Your task to perform on an android device: Go to Amazon Image 0: 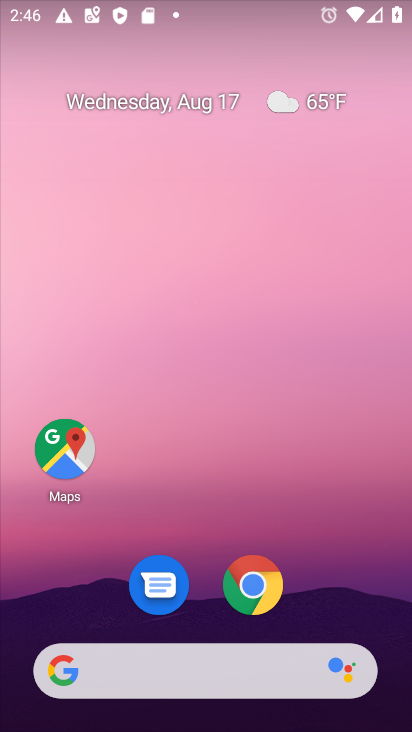
Step 0: click (254, 581)
Your task to perform on an android device: Go to Amazon Image 1: 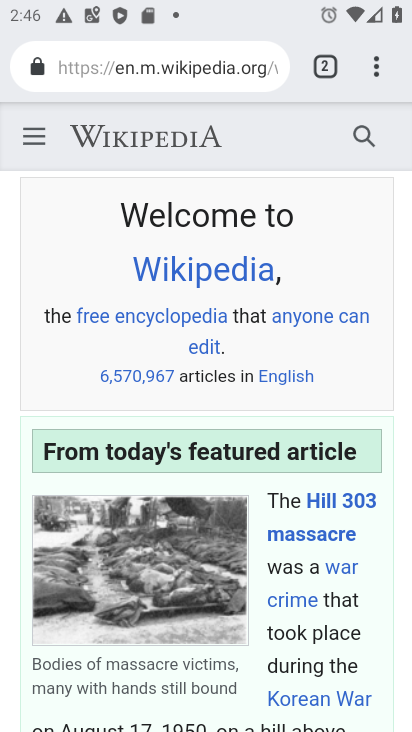
Step 1: click (374, 71)
Your task to perform on an android device: Go to Amazon Image 2: 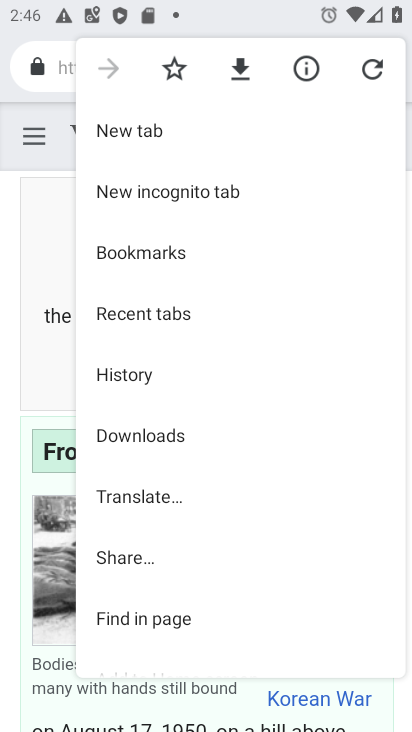
Step 2: click (197, 146)
Your task to perform on an android device: Go to Amazon Image 3: 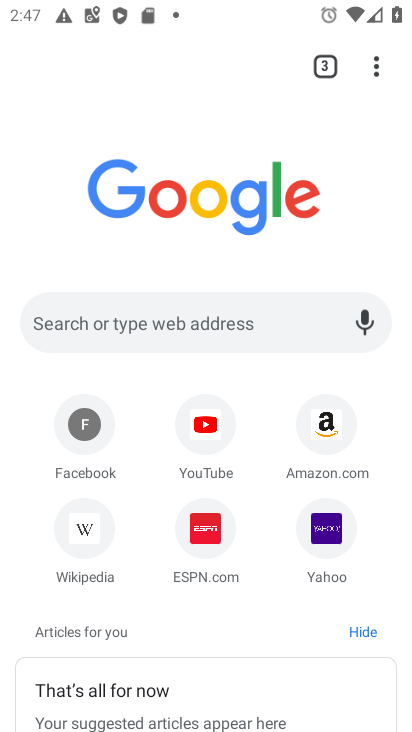
Step 3: click (323, 419)
Your task to perform on an android device: Go to Amazon Image 4: 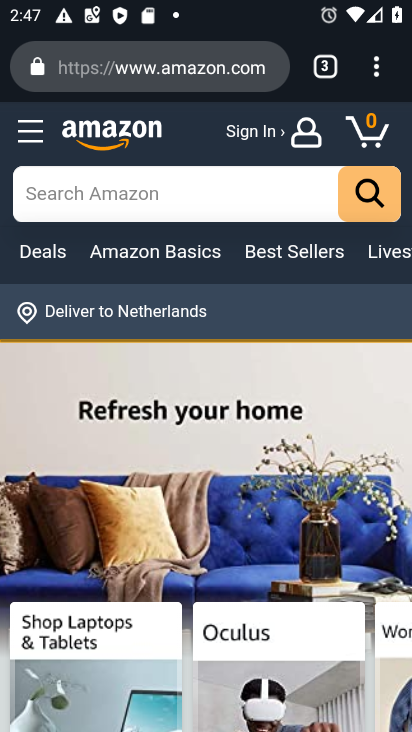
Step 4: task complete